Your task to perform on an android device: turn on sleep mode Image 0: 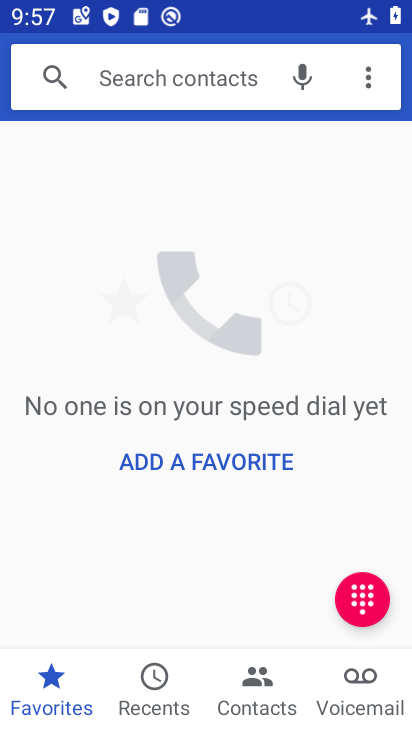
Step 0: press home button
Your task to perform on an android device: turn on sleep mode Image 1: 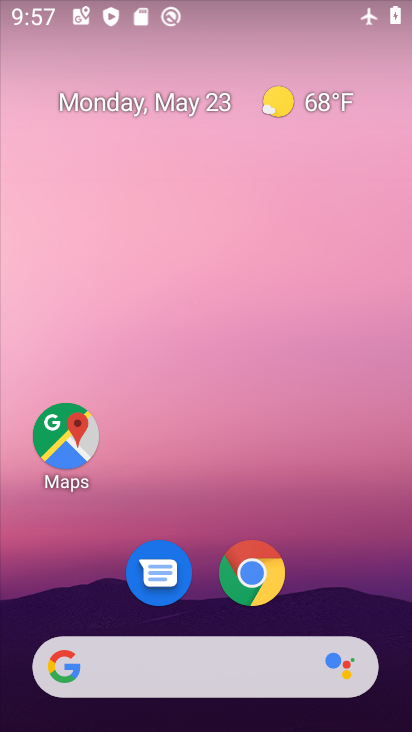
Step 1: drag from (265, 666) to (265, 156)
Your task to perform on an android device: turn on sleep mode Image 2: 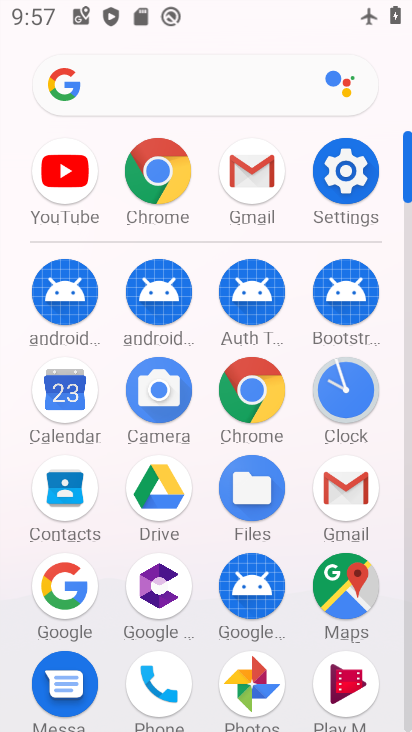
Step 2: click (358, 185)
Your task to perform on an android device: turn on sleep mode Image 3: 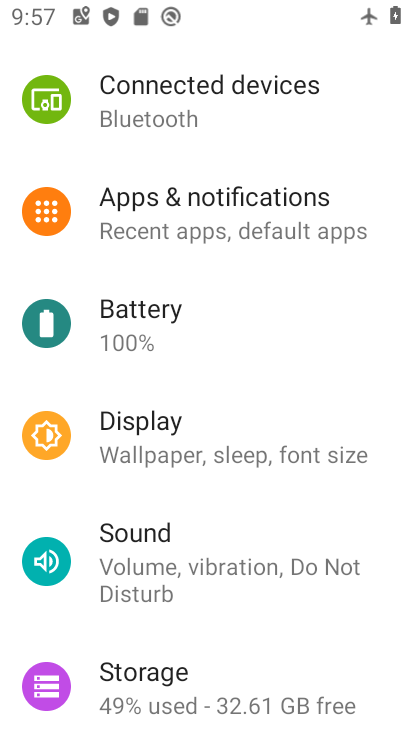
Step 3: drag from (220, 584) to (246, 353)
Your task to perform on an android device: turn on sleep mode Image 4: 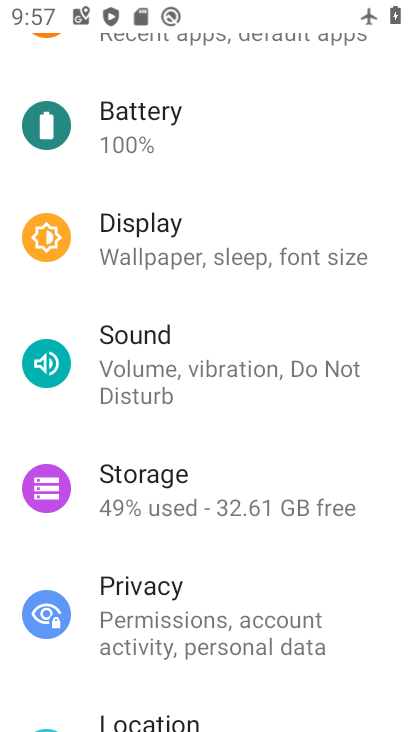
Step 4: click (270, 219)
Your task to perform on an android device: turn on sleep mode Image 5: 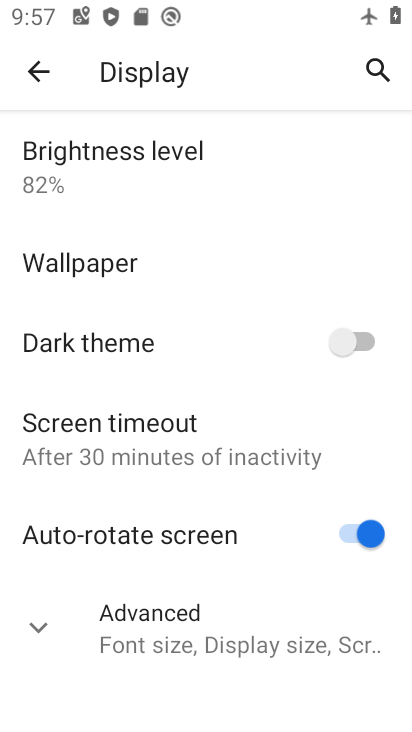
Step 5: task complete